Your task to perform on an android device: Clear the cart on newegg.com. Search for logitech g903 on newegg.com, select the first entry, add it to the cart, then select checkout. Image 0: 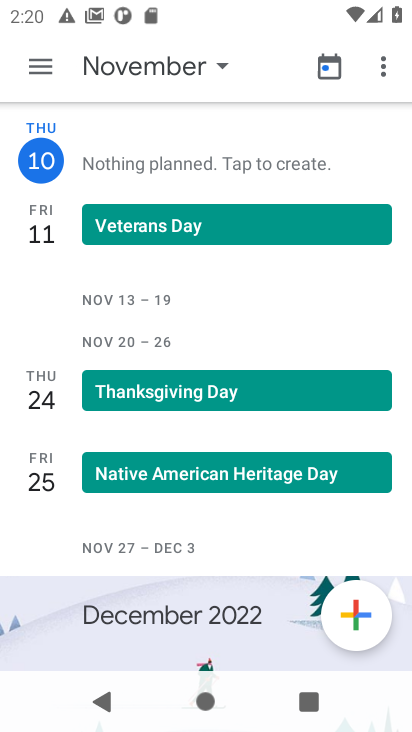
Step 0: press home button
Your task to perform on an android device: Clear the cart on newegg.com. Search for logitech g903 on newegg.com, select the first entry, add it to the cart, then select checkout. Image 1: 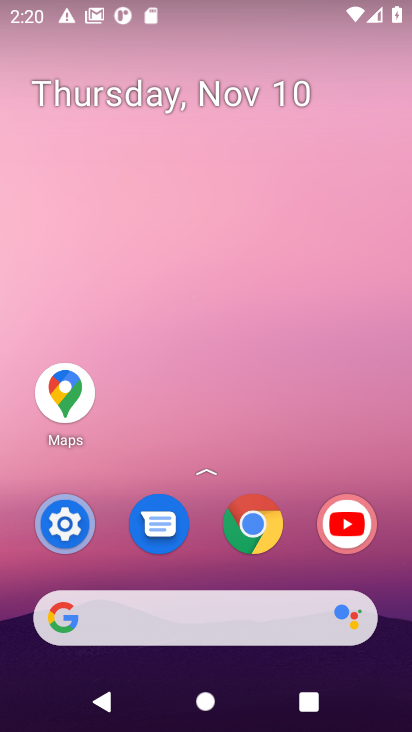
Step 1: click (246, 534)
Your task to perform on an android device: Clear the cart on newegg.com. Search for logitech g903 on newegg.com, select the first entry, add it to the cart, then select checkout. Image 2: 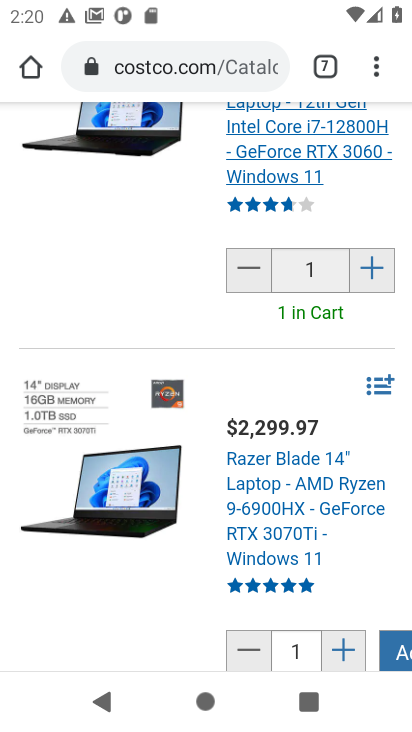
Step 2: click (322, 74)
Your task to perform on an android device: Clear the cart on newegg.com. Search for logitech g903 on newegg.com, select the first entry, add it to the cart, then select checkout. Image 3: 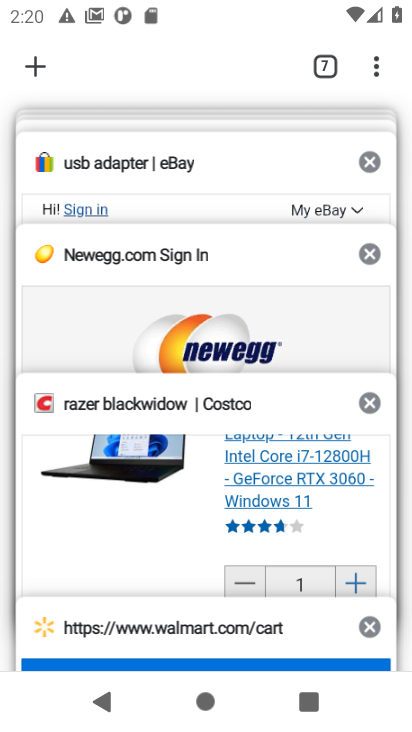
Step 3: click (203, 275)
Your task to perform on an android device: Clear the cart on newegg.com. Search for logitech g903 on newegg.com, select the first entry, add it to the cart, then select checkout. Image 4: 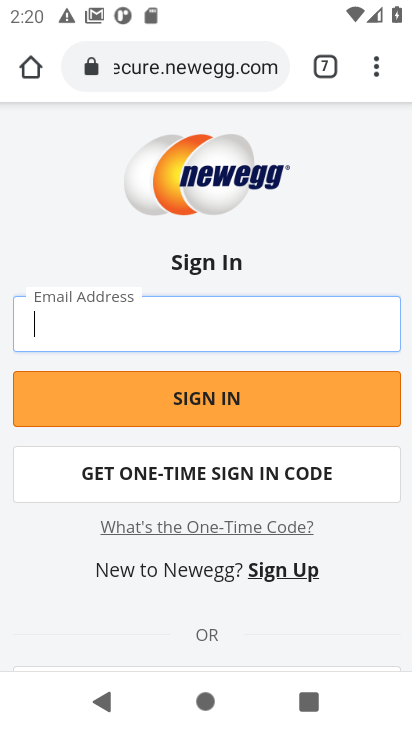
Step 4: press back button
Your task to perform on an android device: Clear the cart on newegg.com. Search for logitech g903 on newegg.com, select the first entry, add it to the cart, then select checkout. Image 5: 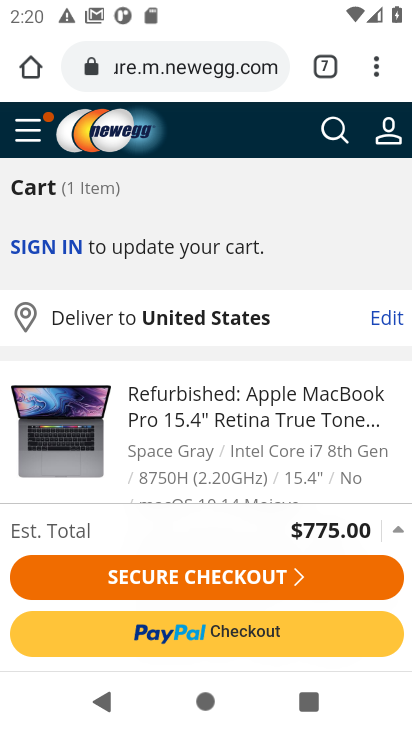
Step 5: click (334, 128)
Your task to perform on an android device: Clear the cart on newegg.com. Search for logitech g903 on newegg.com, select the first entry, add it to the cart, then select checkout. Image 6: 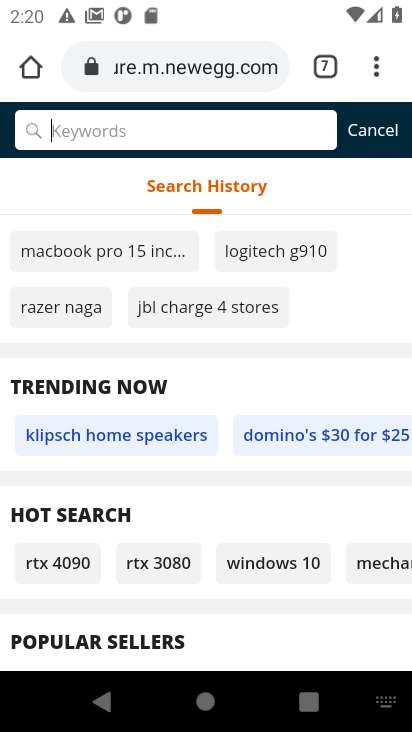
Step 6: type "logitech g903"
Your task to perform on an android device: Clear the cart on newegg.com. Search for logitech g903 on newegg.com, select the first entry, add it to the cart, then select checkout. Image 7: 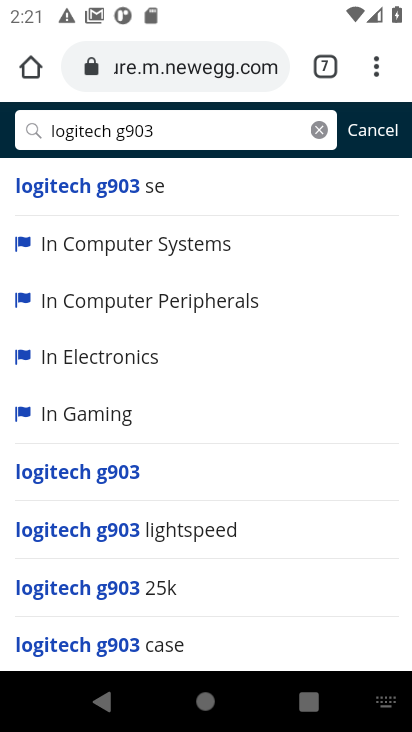
Step 7: click (64, 192)
Your task to perform on an android device: Clear the cart on newegg.com. Search for logitech g903 on newegg.com, select the first entry, add it to the cart, then select checkout. Image 8: 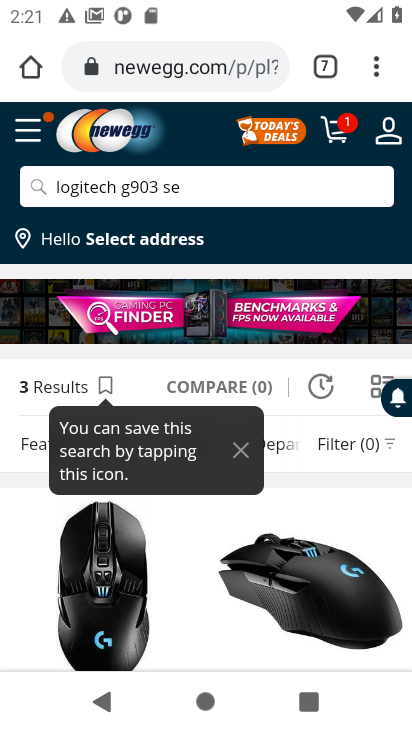
Step 8: click (242, 456)
Your task to perform on an android device: Clear the cart on newegg.com. Search for logitech g903 on newegg.com, select the first entry, add it to the cart, then select checkout. Image 9: 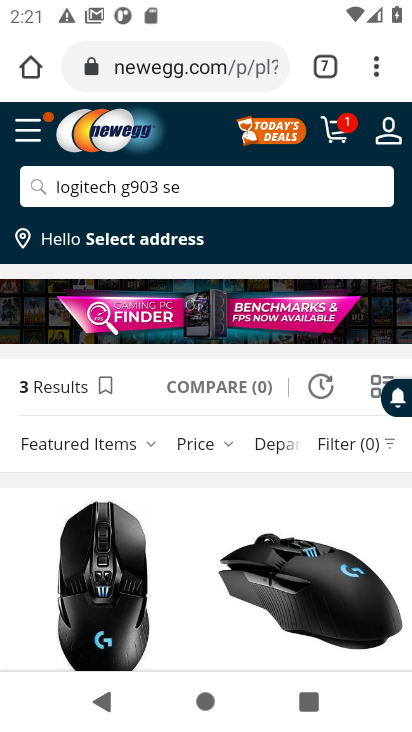
Step 9: drag from (191, 603) to (270, 240)
Your task to perform on an android device: Clear the cart on newegg.com. Search for logitech g903 on newegg.com, select the first entry, add it to the cart, then select checkout. Image 10: 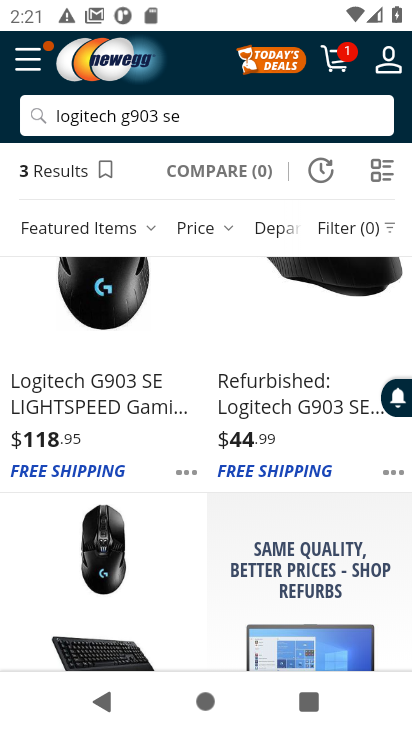
Step 10: click (142, 398)
Your task to perform on an android device: Clear the cart on newegg.com. Search for logitech g903 on newegg.com, select the first entry, add it to the cart, then select checkout. Image 11: 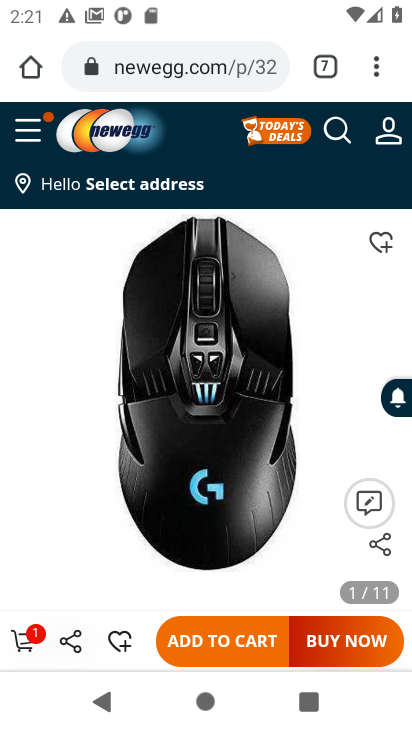
Step 11: click (218, 647)
Your task to perform on an android device: Clear the cart on newegg.com. Search for logitech g903 on newegg.com, select the first entry, add it to the cart, then select checkout. Image 12: 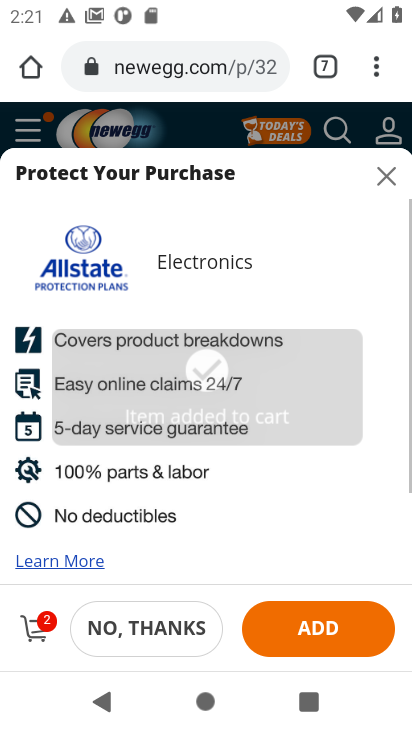
Step 12: task complete